Your task to perform on an android device: Open Google Chrome and click the shortcut for Amazon.com Image 0: 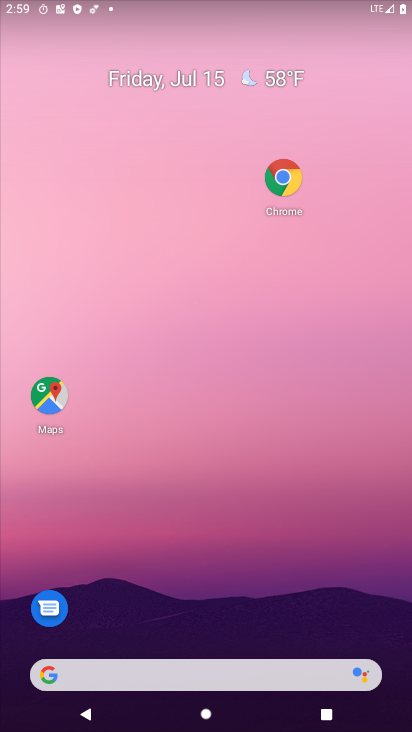
Step 0: press home button
Your task to perform on an android device: Open Google Chrome and click the shortcut for Amazon.com Image 1: 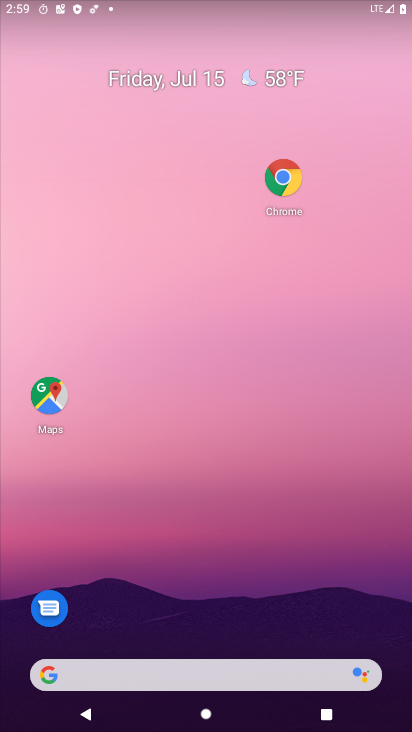
Step 1: drag from (287, 547) to (369, 48)
Your task to perform on an android device: Open Google Chrome and click the shortcut for Amazon.com Image 2: 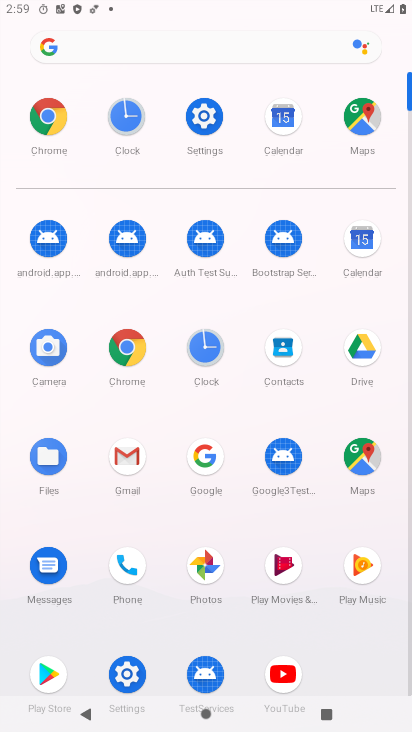
Step 2: click (152, 327)
Your task to perform on an android device: Open Google Chrome and click the shortcut for Amazon.com Image 3: 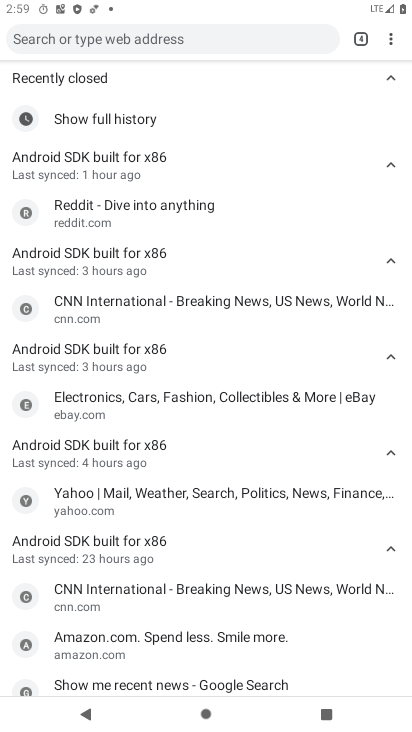
Step 3: click (285, 45)
Your task to perform on an android device: Open Google Chrome and click the shortcut for Amazon.com Image 4: 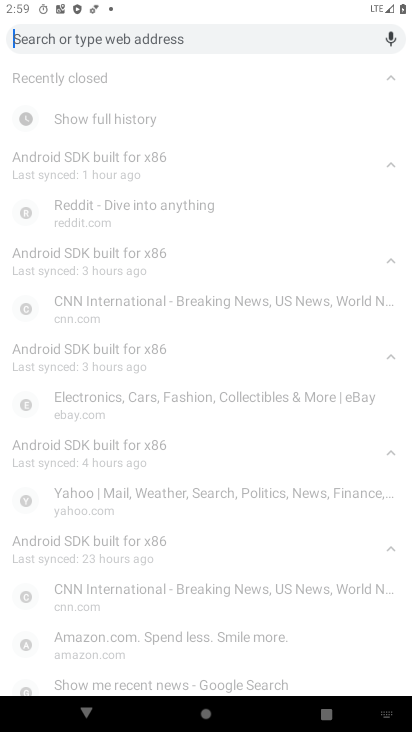
Step 4: click (182, 495)
Your task to perform on an android device: Open Google Chrome and click the shortcut for Amazon.com Image 5: 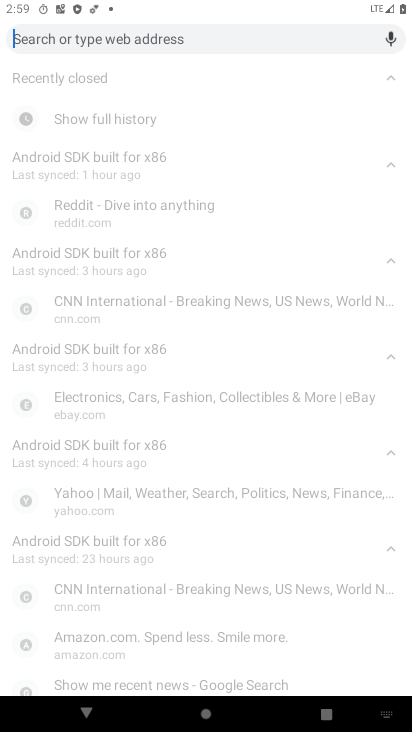
Step 5: click (190, 492)
Your task to perform on an android device: Open Google Chrome and click the shortcut for Amazon.com Image 6: 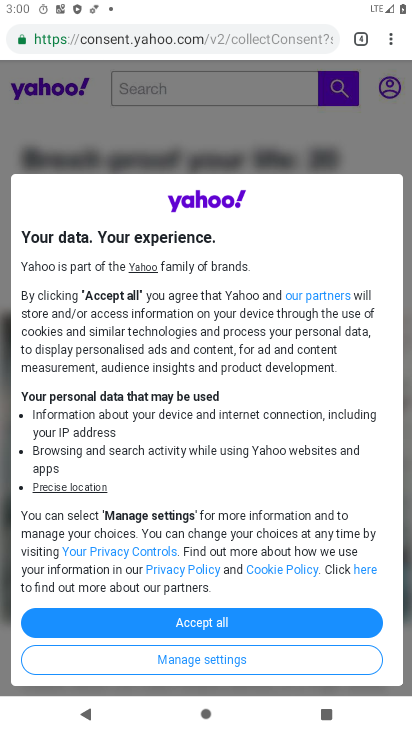
Step 6: drag from (383, 50) to (308, 79)
Your task to perform on an android device: Open Google Chrome and click the shortcut for Amazon.com Image 7: 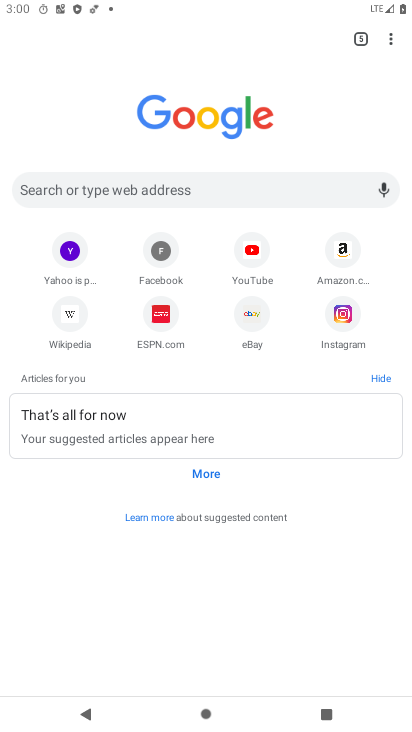
Step 7: click (350, 246)
Your task to perform on an android device: Open Google Chrome and click the shortcut for Amazon.com Image 8: 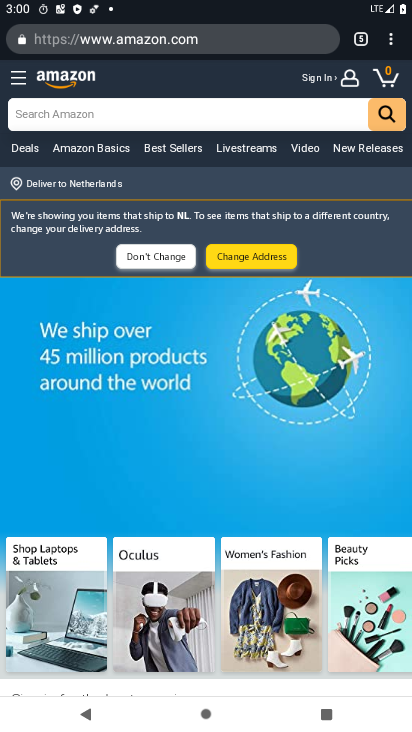
Step 8: task complete